Your task to perform on an android device: open the mobile data screen to see how much data has been used Image 0: 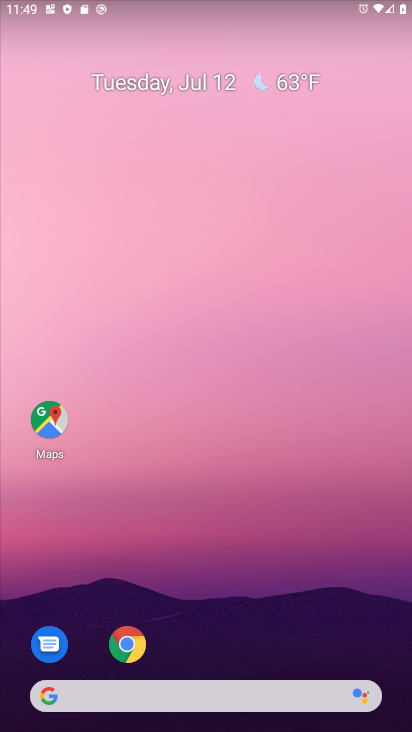
Step 0: drag from (187, 694) to (199, 242)
Your task to perform on an android device: open the mobile data screen to see how much data has been used Image 1: 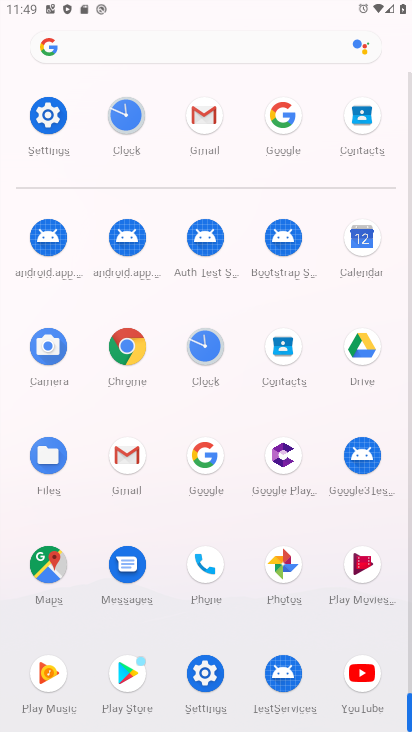
Step 1: click (47, 114)
Your task to perform on an android device: open the mobile data screen to see how much data has been used Image 2: 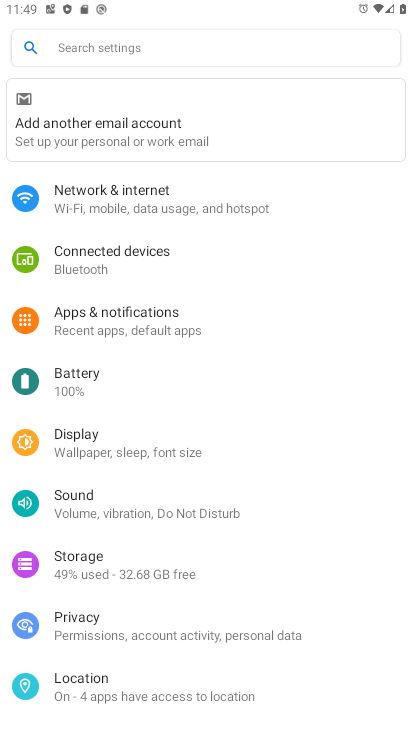
Step 2: click (140, 207)
Your task to perform on an android device: open the mobile data screen to see how much data has been used Image 3: 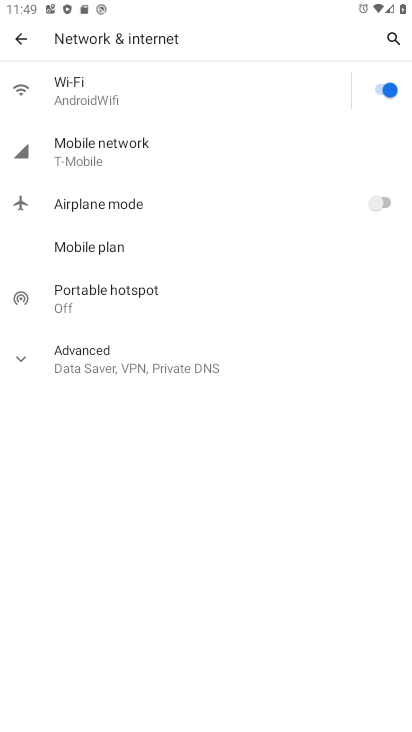
Step 3: click (101, 146)
Your task to perform on an android device: open the mobile data screen to see how much data has been used Image 4: 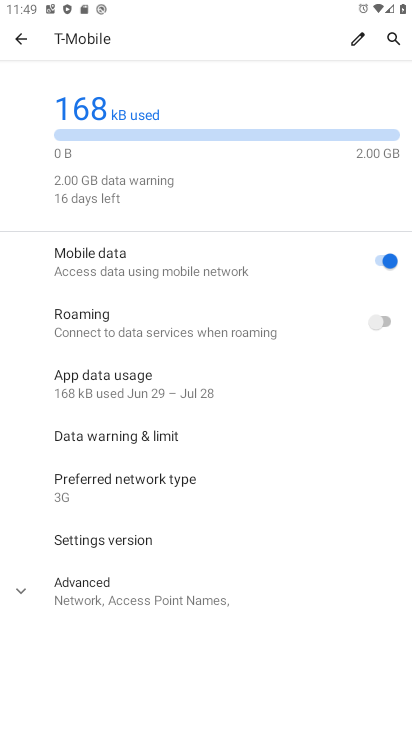
Step 4: task complete